Your task to perform on an android device: change the clock display to analog Image 0: 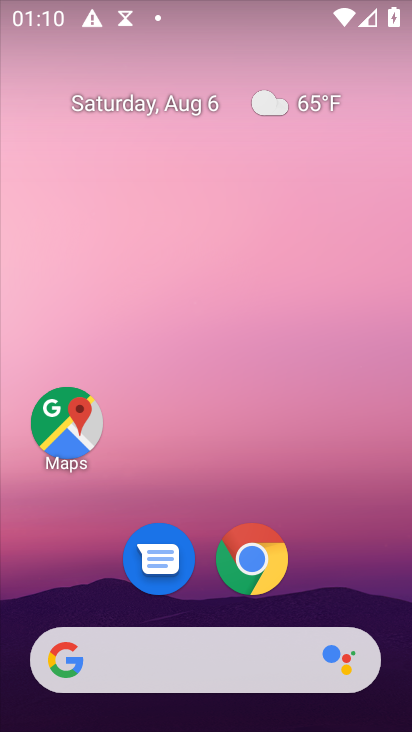
Step 0: drag from (366, 593) to (253, 209)
Your task to perform on an android device: change the clock display to analog Image 1: 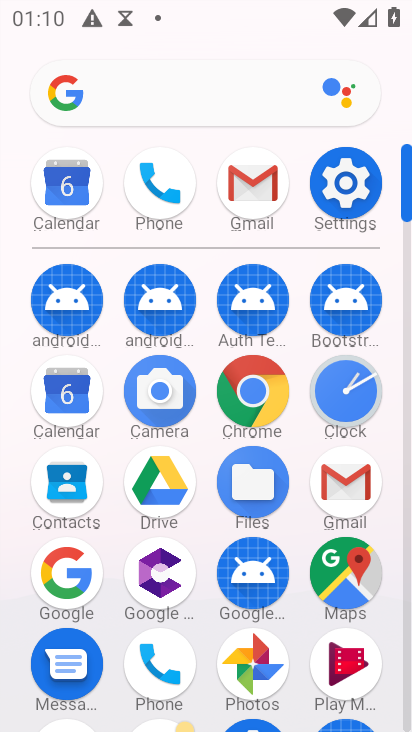
Step 1: click (351, 400)
Your task to perform on an android device: change the clock display to analog Image 2: 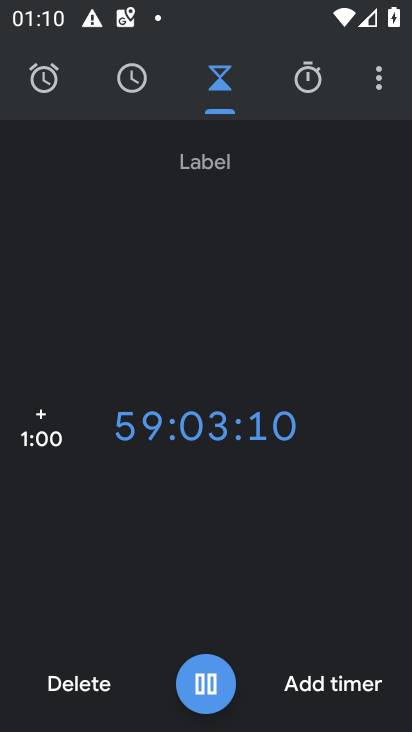
Step 2: click (386, 85)
Your task to perform on an android device: change the clock display to analog Image 3: 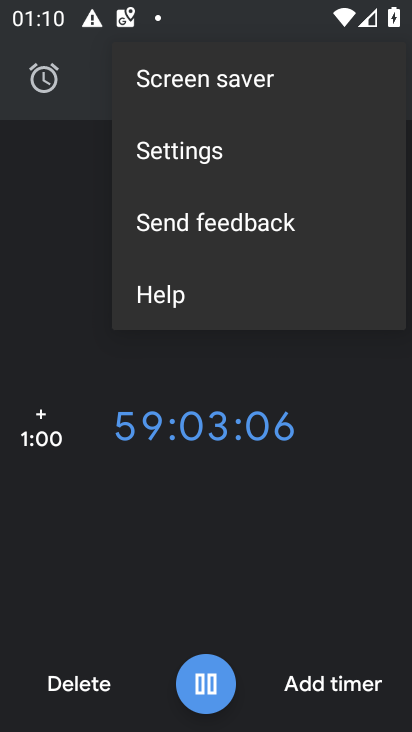
Step 3: click (313, 156)
Your task to perform on an android device: change the clock display to analog Image 4: 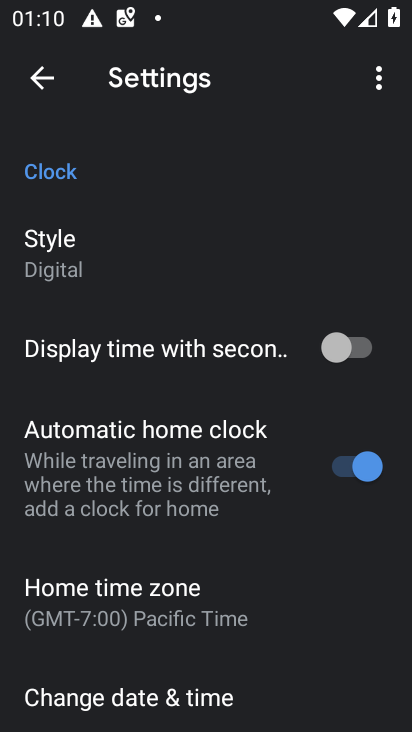
Step 4: click (219, 231)
Your task to perform on an android device: change the clock display to analog Image 5: 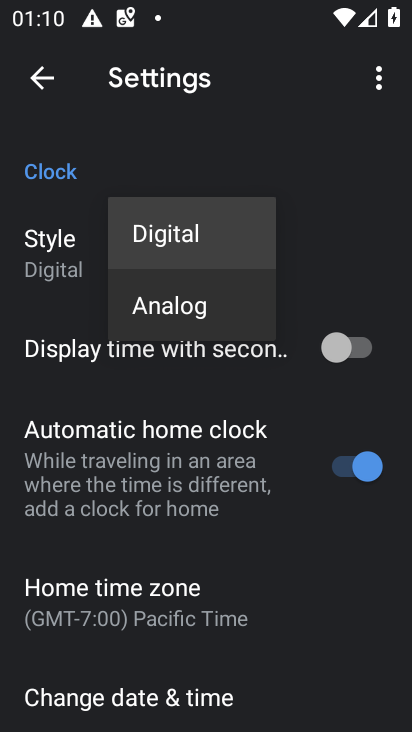
Step 5: click (211, 275)
Your task to perform on an android device: change the clock display to analog Image 6: 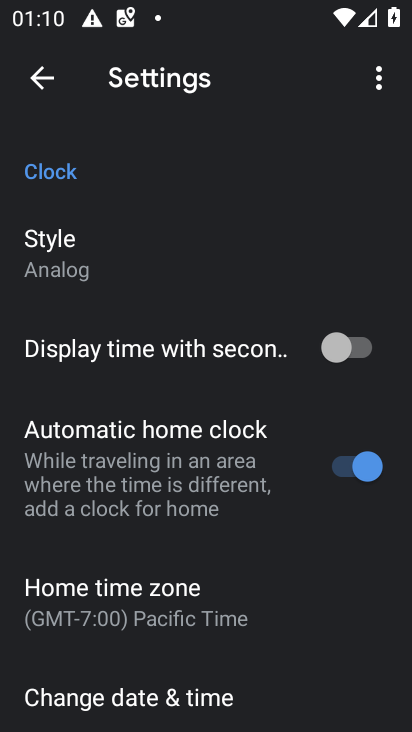
Step 6: task complete